Your task to perform on an android device: Open Google Maps and go to "Timeline" Image 0: 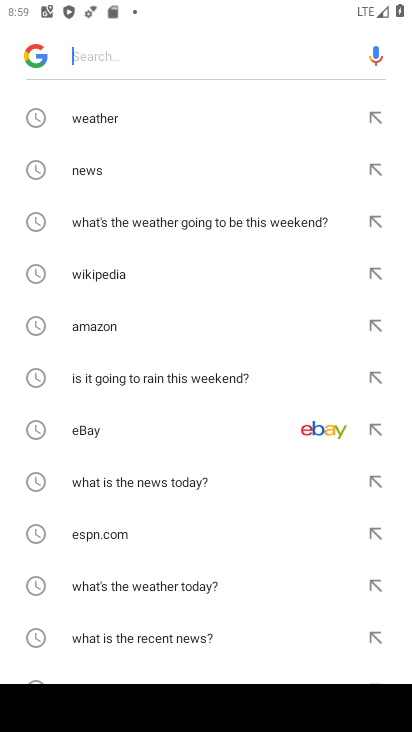
Step 0: press home button
Your task to perform on an android device: Open Google Maps and go to "Timeline" Image 1: 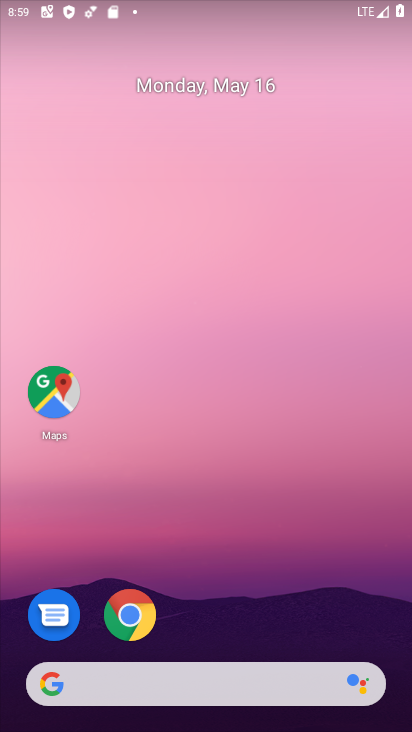
Step 1: drag from (213, 632) to (170, 41)
Your task to perform on an android device: Open Google Maps and go to "Timeline" Image 2: 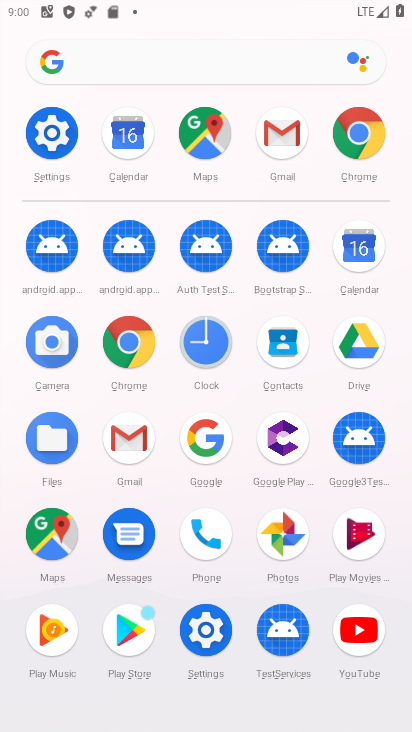
Step 2: click (51, 542)
Your task to perform on an android device: Open Google Maps and go to "Timeline" Image 3: 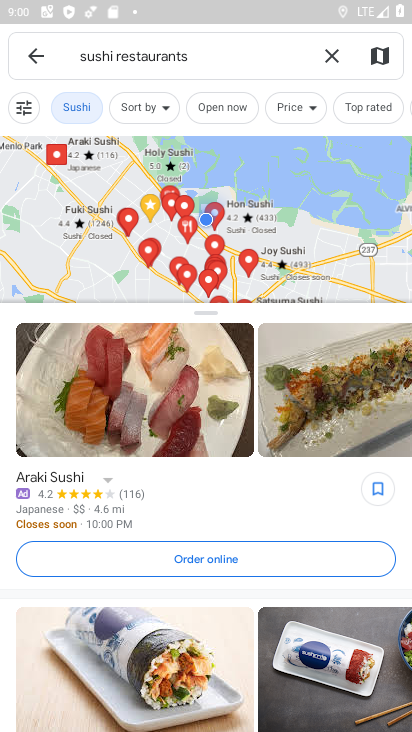
Step 3: click (34, 66)
Your task to perform on an android device: Open Google Maps and go to "Timeline" Image 4: 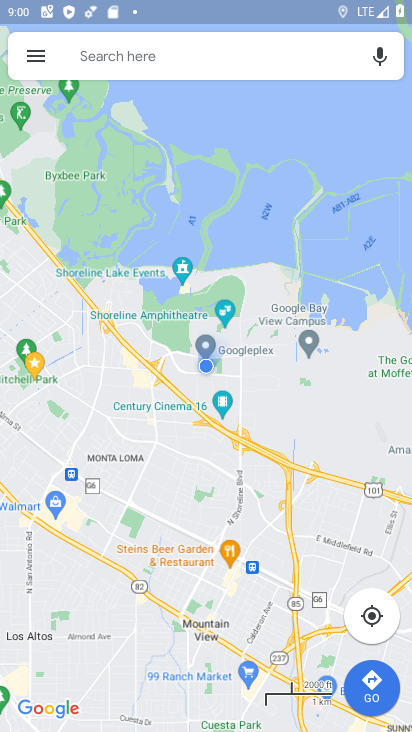
Step 4: click (34, 66)
Your task to perform on an android device: Open Google Maps and go to "Timeline" Image 5: 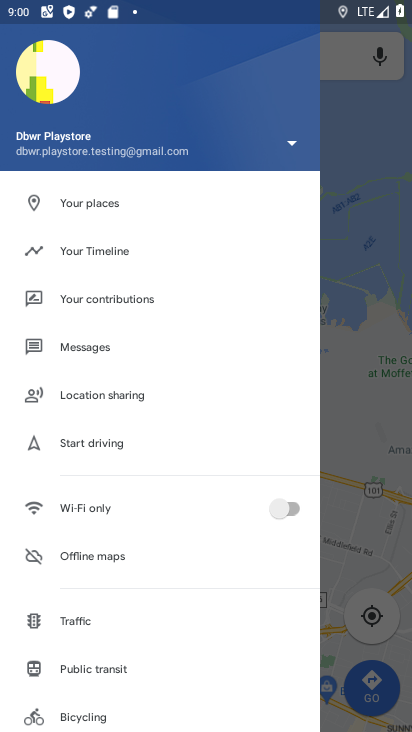
Step 5: click (88, 264)
Your task to perform on an android device: Open Google Maps and go to "Timeline" Image 6: 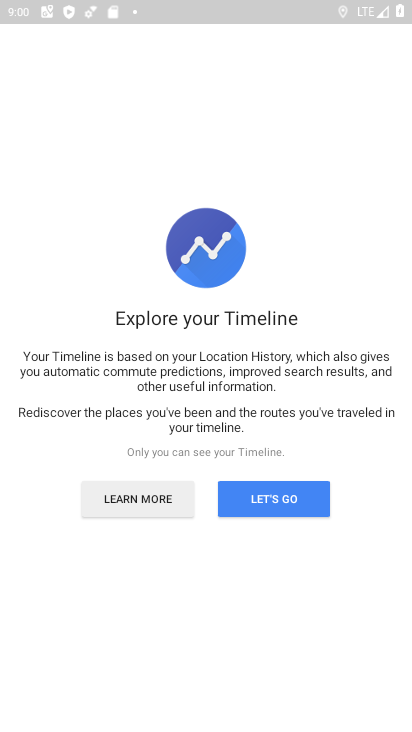
Step 6: click (272, 506)
Your task to perform on an android device: Open Google Maps and go to "Timeline" Image 7: 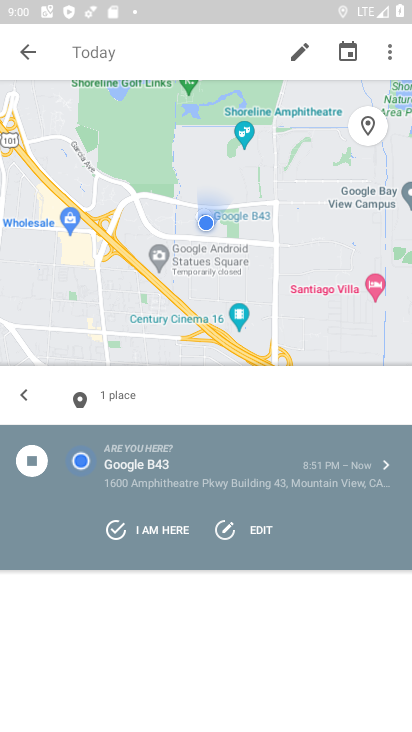
Step 7: task complete